Your task to perform on an android device: toggle airplane mode Image 0: 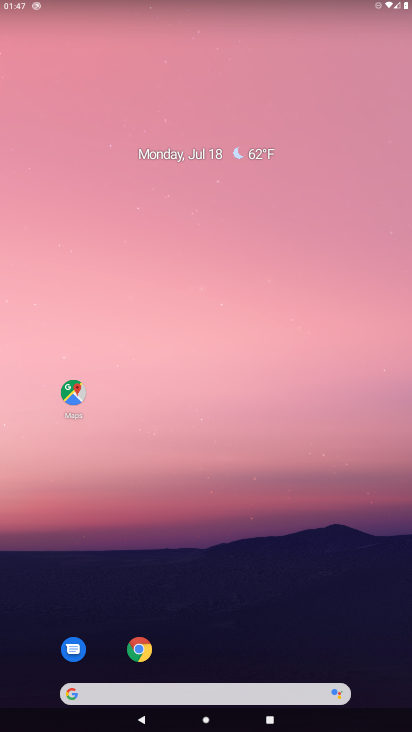
Step 0: drag from (9, 689) to (97, 372)
Your task to perform on an android device: toggle airplane mode Image 1: 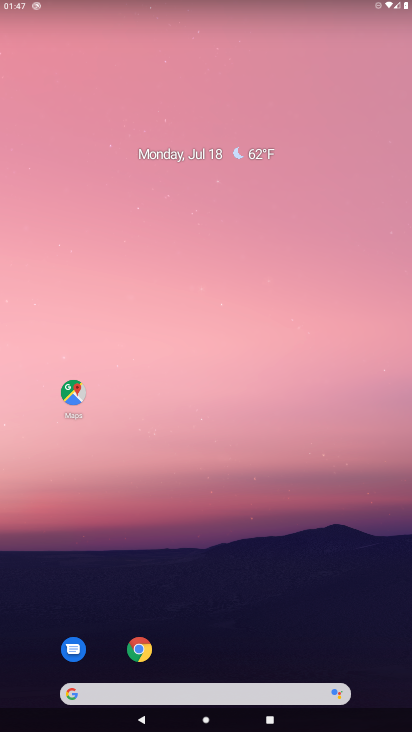
Step 1: drag from (49, 665) to (174, 177)
Your task to perform on an android device: toggle airplane mode Image 2: 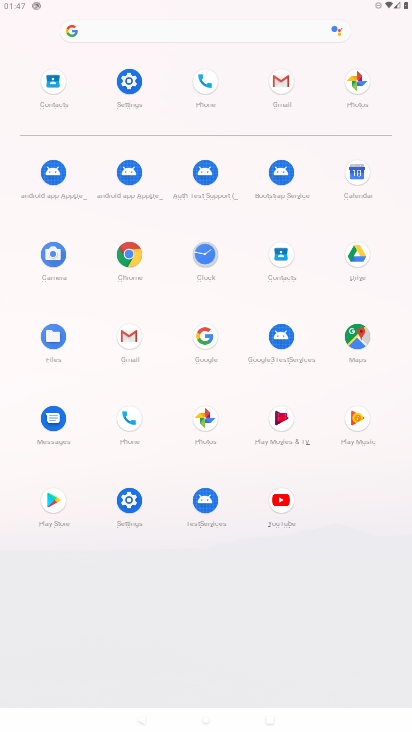
Step 2: click (131, 507)
Your task to perform on an android device: toggle airplane mode Image 3: 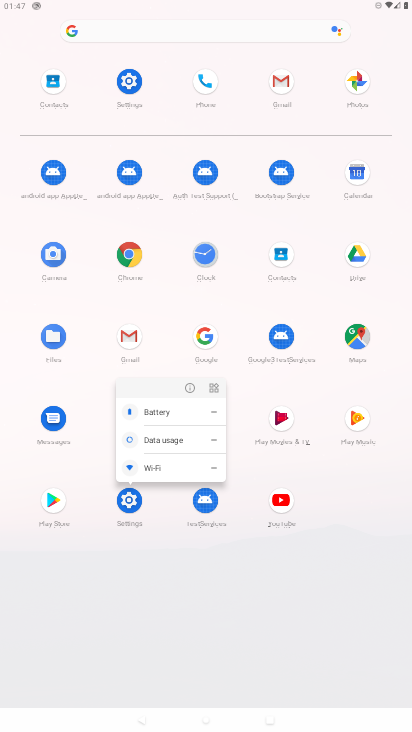
Step 3: click (135, 492)
Your task to perform on an android device: toggle airplane mode Image 4: 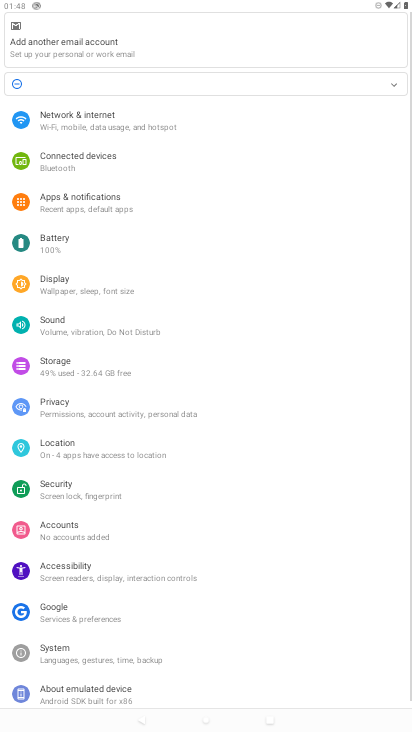
Step 4: click (100, 56)
Your task to perform on an android device: toggle airplane mode Image 5: 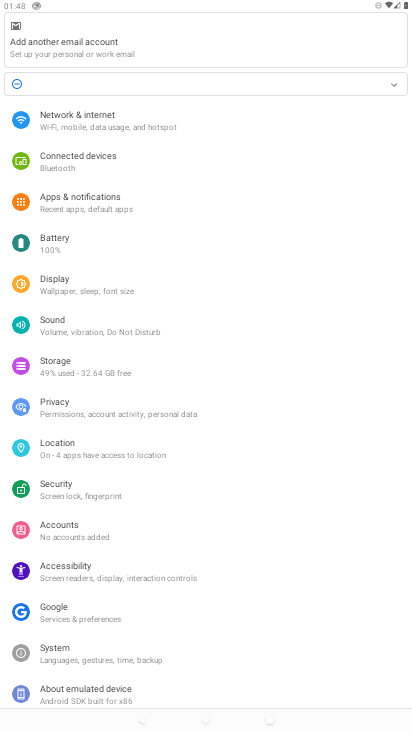
Step 5: click (99, 128)
Your task to perform on an android device: toggle airplane mode Image 6: 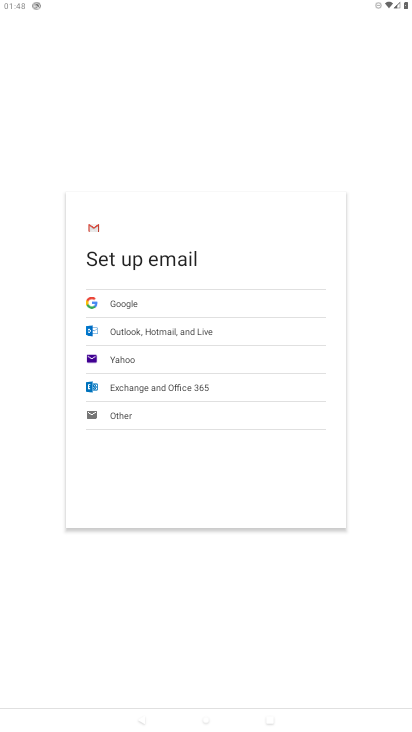
Step 6: task complete